Your task to perform on an android device: What's the weather going to be tomorrow? Image 0: 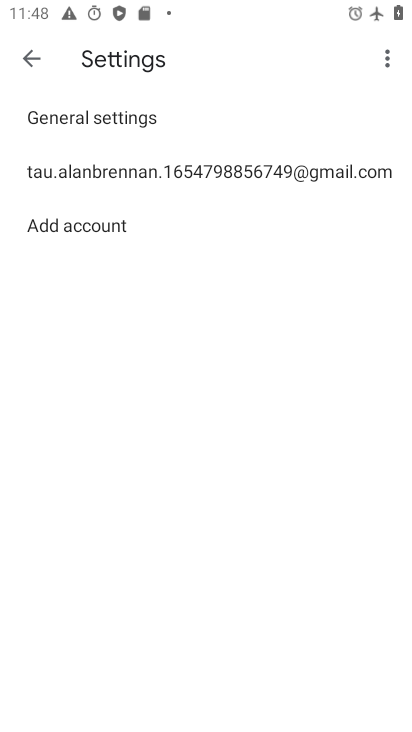
Step 0: press home button
Your task to perform on an android device: What's the weather going to be tomorrow? Image 1: 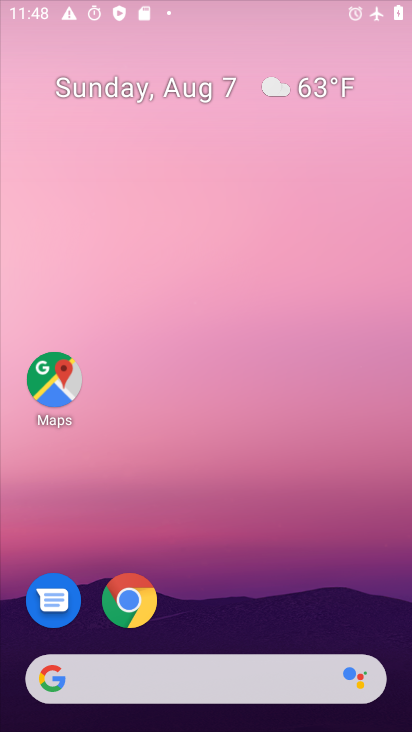
Step 1: task complete